Your task to perform on an android device: Add "bose soundlink mini" to the cart on bestbuy.com, then select checkout. Image 0: 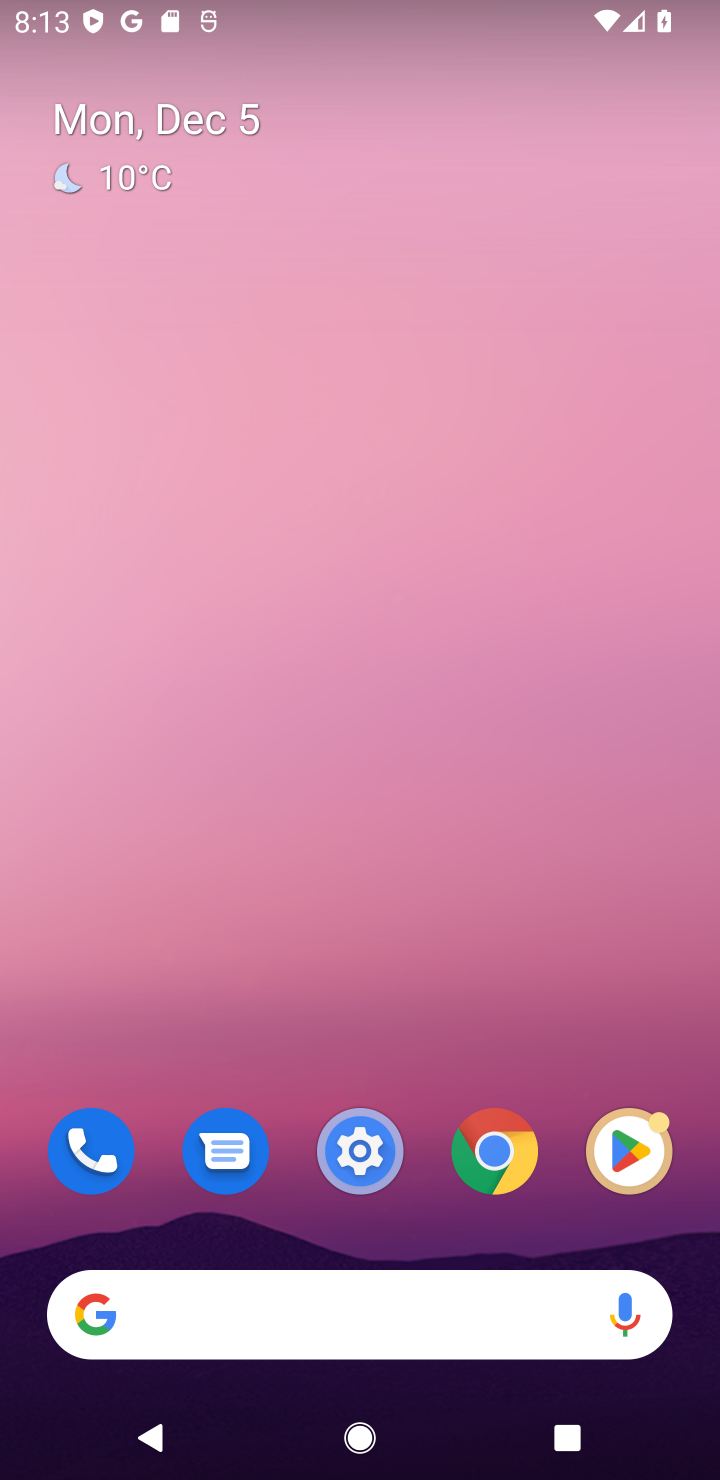
Step 0: click (191, 1333)
Your task to perform on an android device: Add "bose soundlink mini" to the cart on bestbuy.com, then select checkout. Image 1: 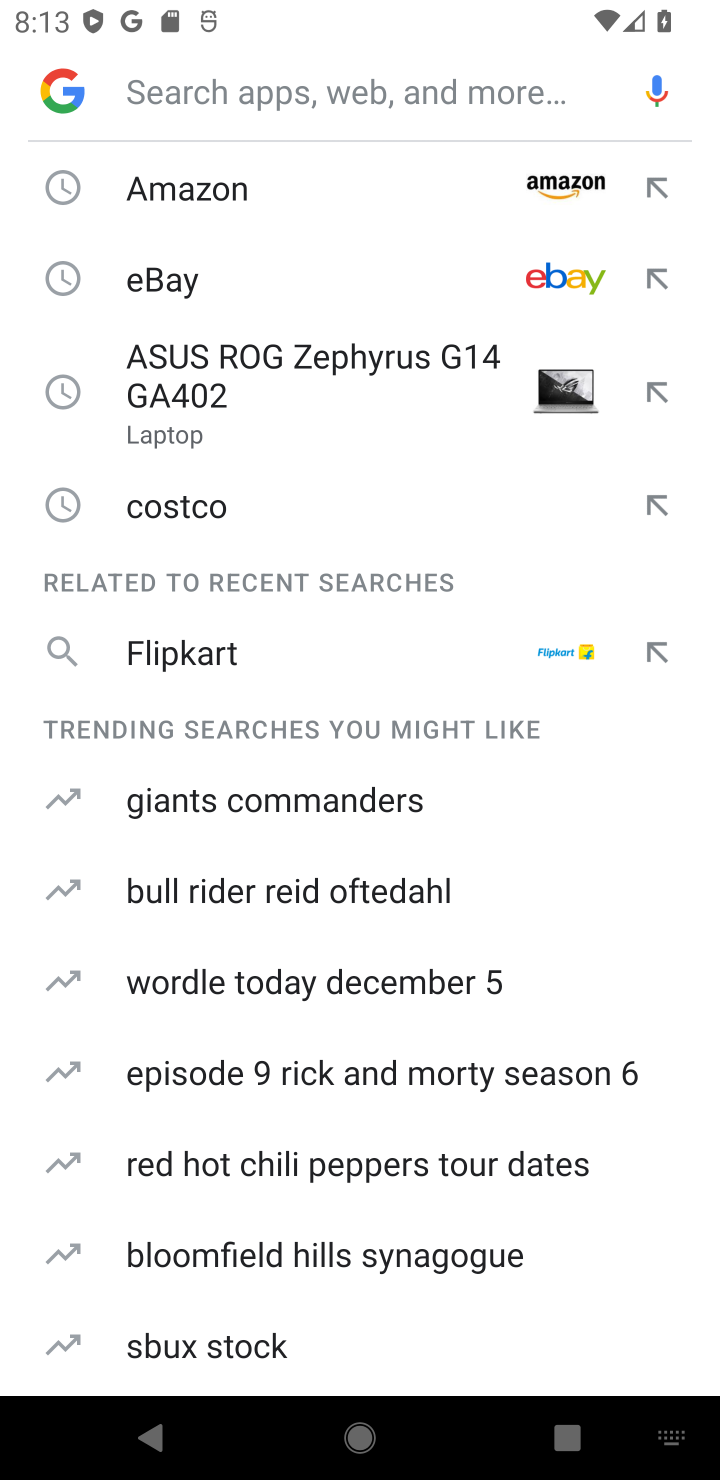
Step 1: type "bestbuy"
Your task to perform on an android device: Add "bose soundlink mini" to the cart on bestbuy.com, then select checkout. Image 2: 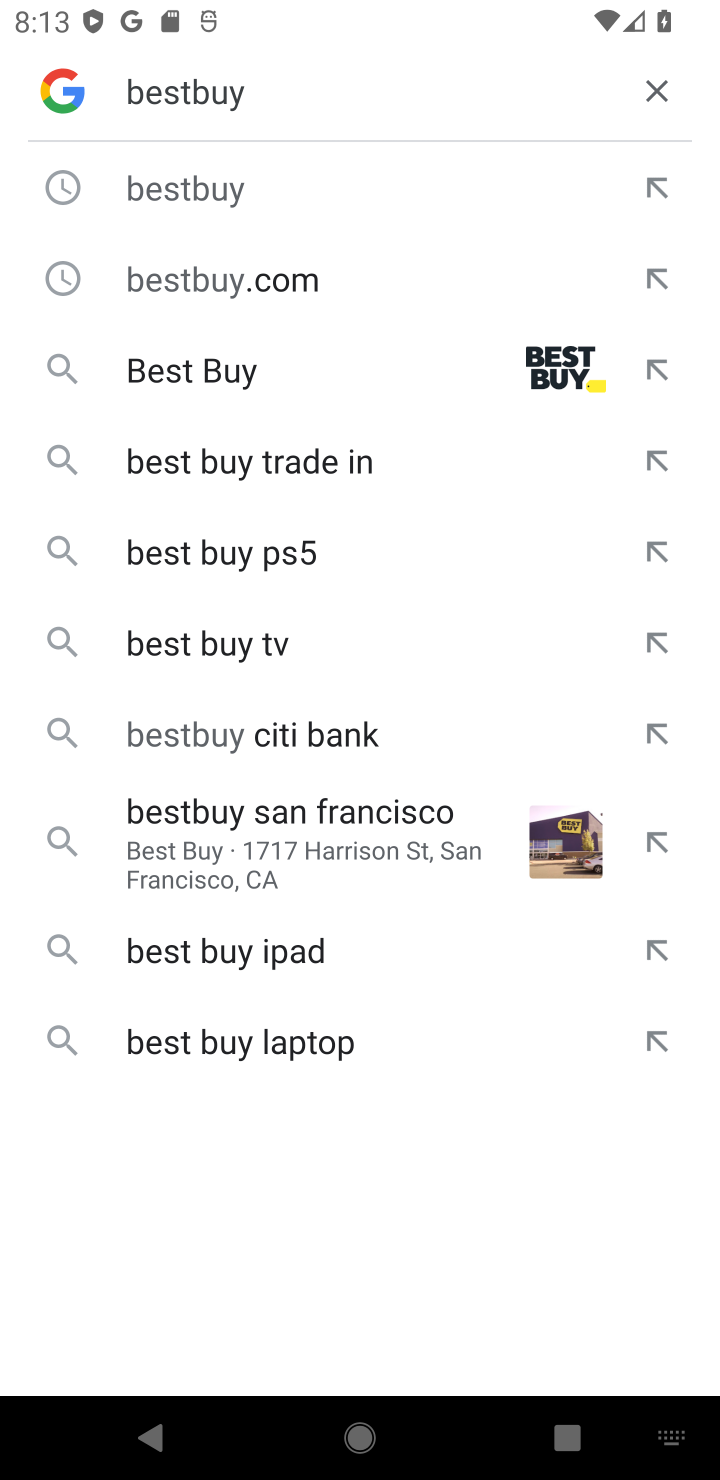
Step 2: click (271, 368)
Your task to perform on an android device: Add "bose soundlink mini" to the cart on bestbuy.com, then select checkout. Image 3: 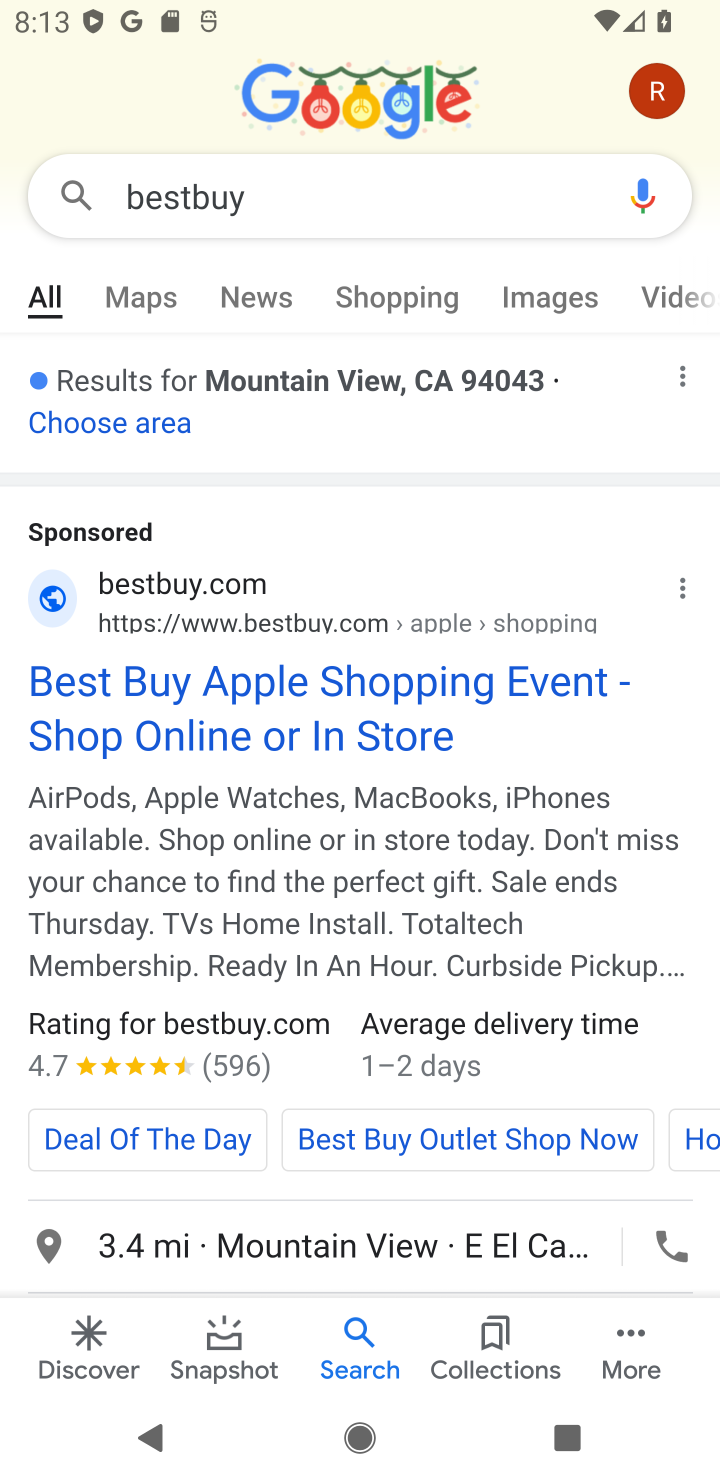
Step 3: click (308, 746)
Your task to perform on an android device: Add "bose soundlink mini" to the cart on bestbuy.com, then select checkout. Image 4: 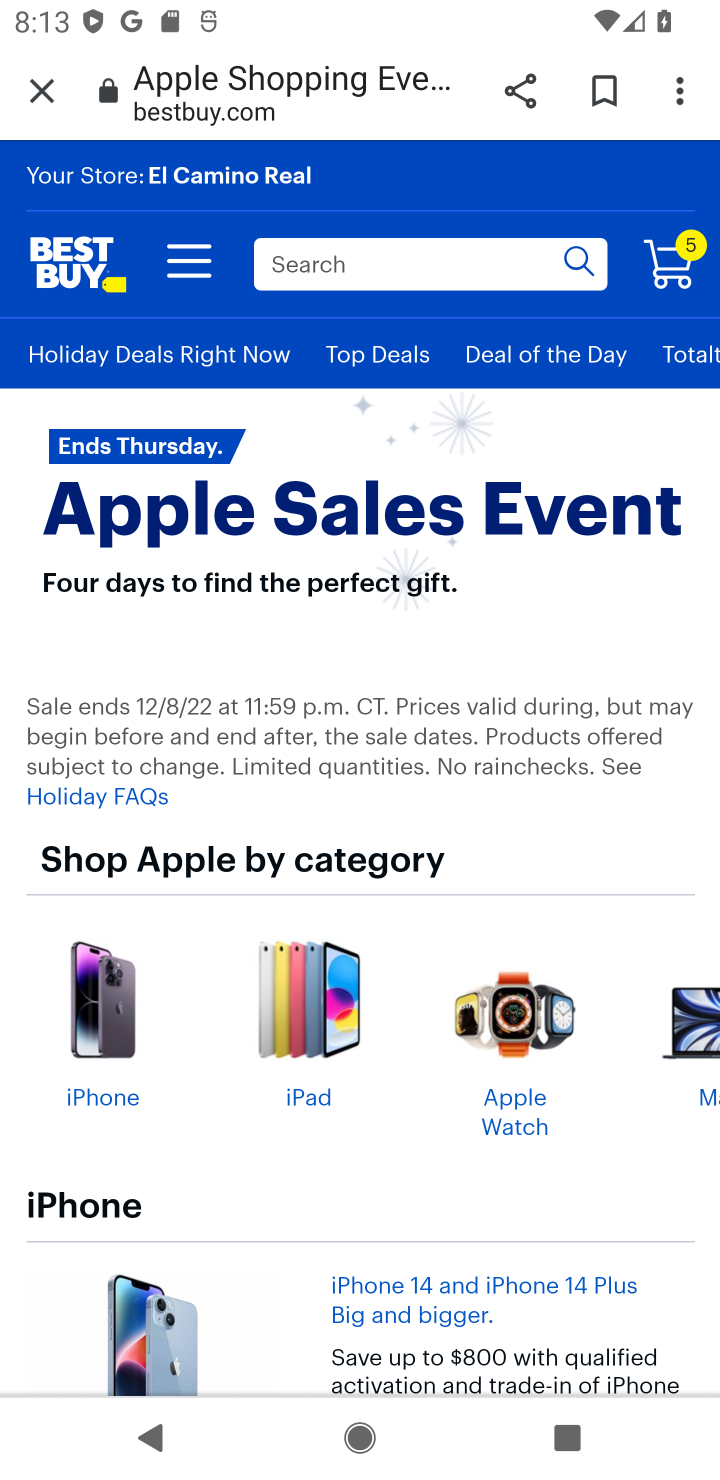
Step 4: click (281, 262)
Your task to perform on an android device: Add "bose soundlink mini" to the cart on bestbuy.com, then select checkout. Image 5: 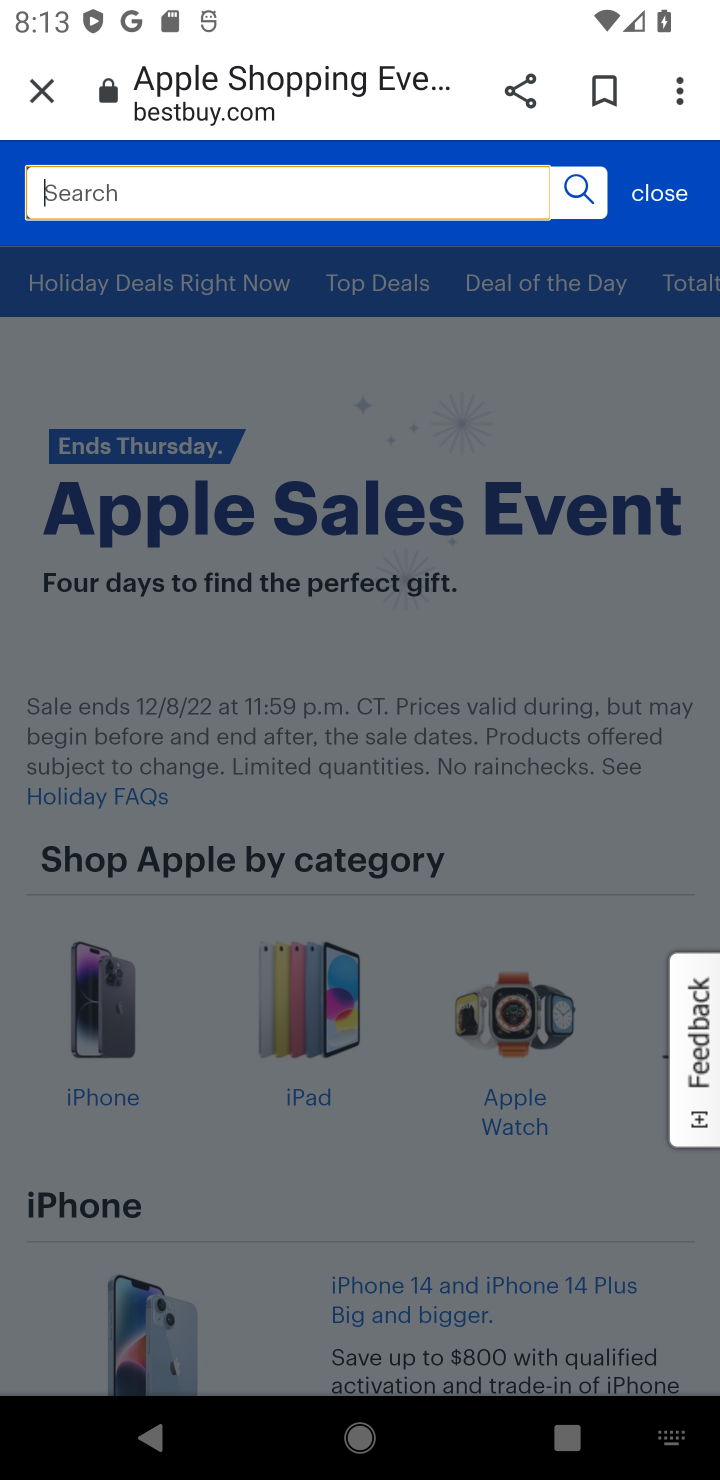
Step 5: type "bose soundlink"
Your task to perform on an android device: Add "bose soundlink mini" to the cart on bestbuy.com, then select checkout. Image 6: 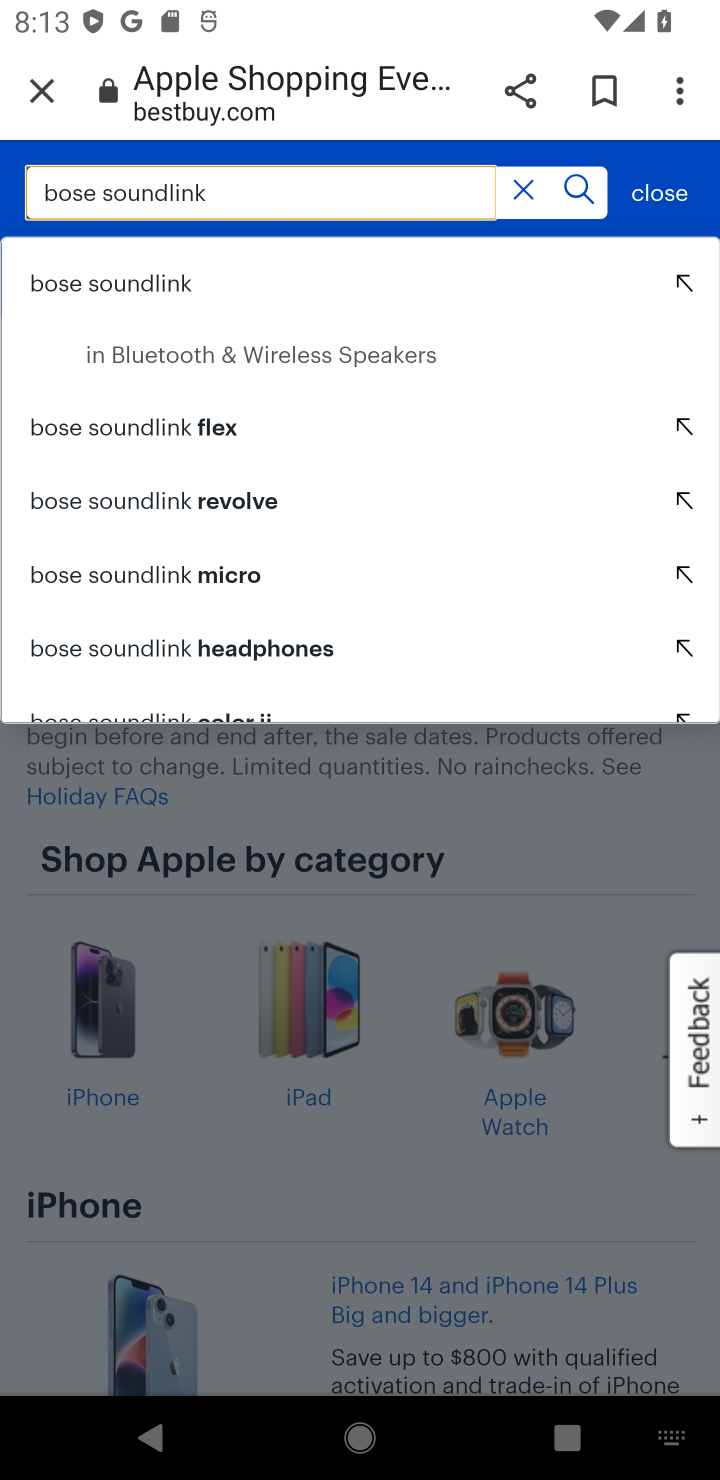
Step 6: click (148, 272)
Your task to perform on an android device: Add "bose soundlink mini" to the cart on bestbuy.com, then select checkout. Image 7: 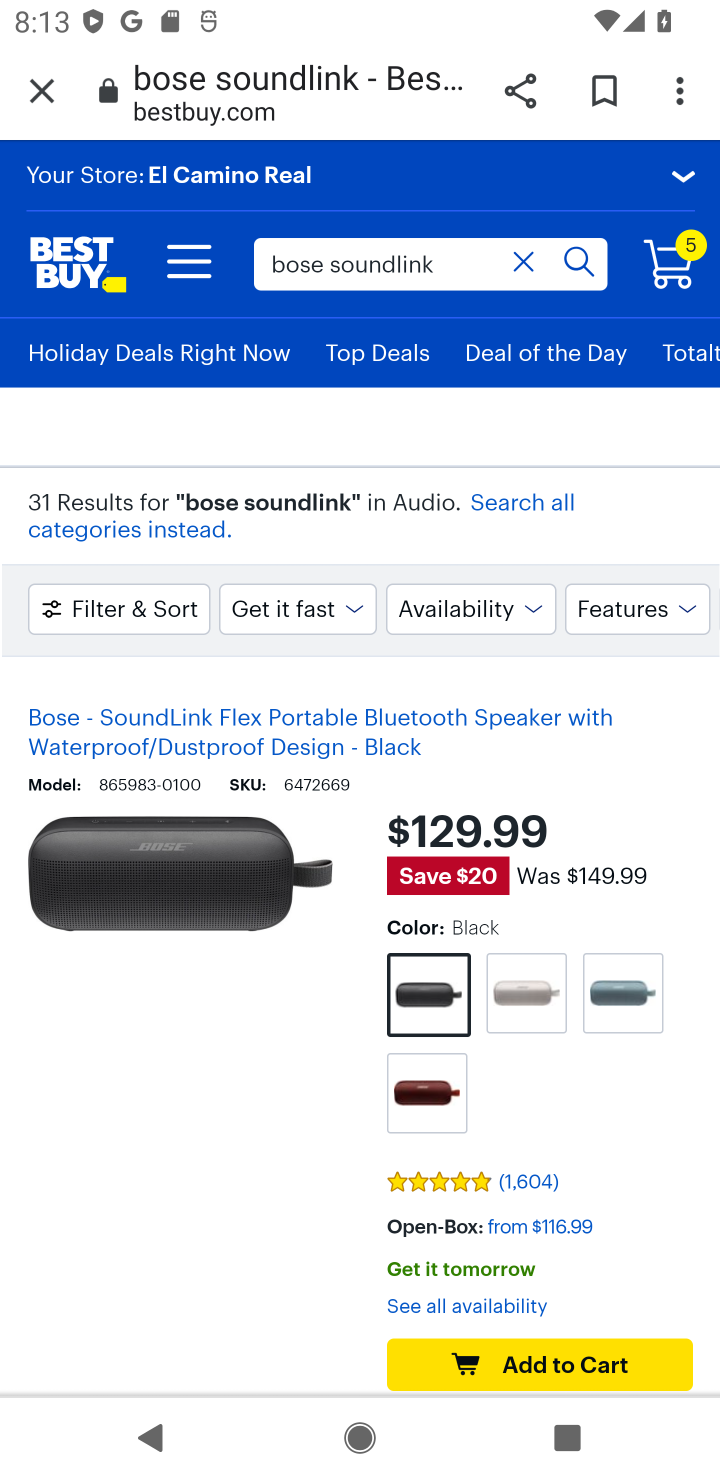
Step 7: click (553, 1364)
Your task to perform on an android device: Add "bose soundlink mini" to the cart on bestbuy.com, then select checkout. Image 8: 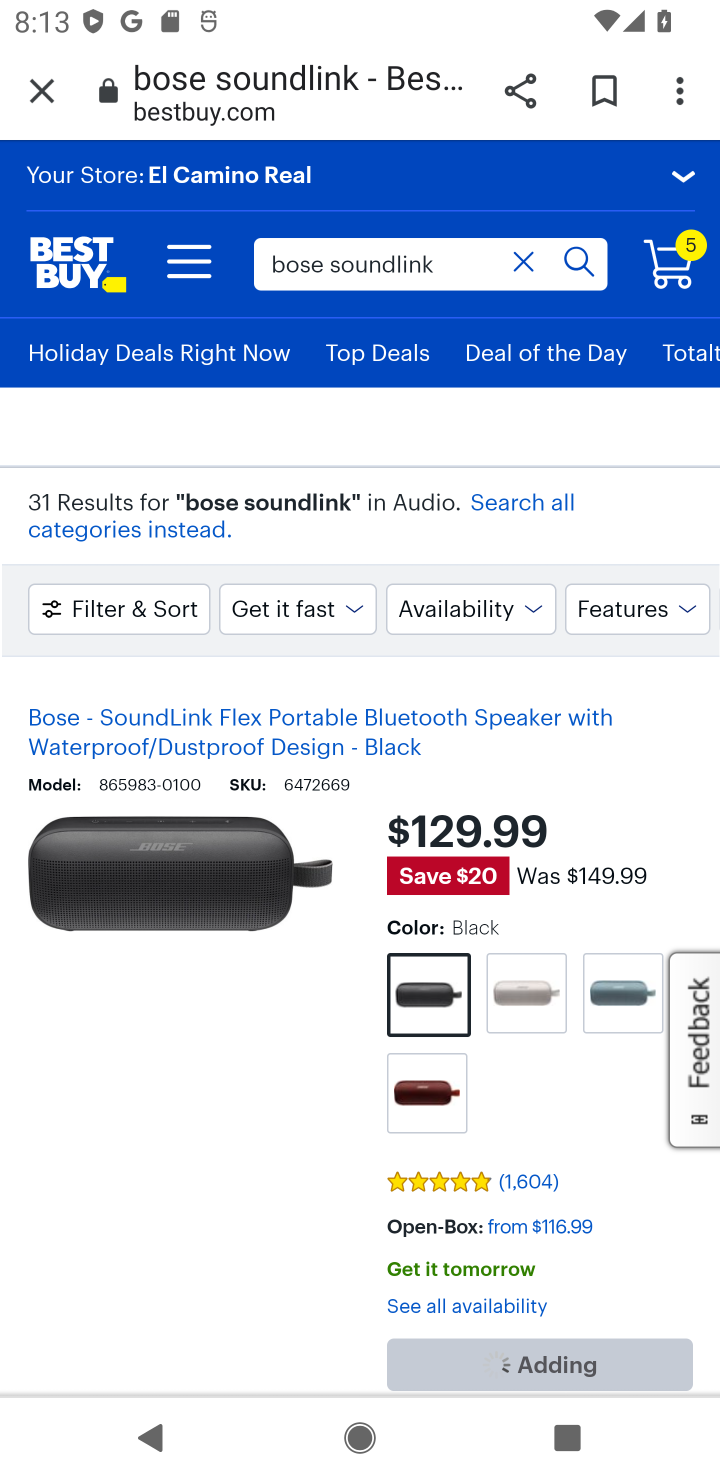
Step 8: task complete